Your task to perform on an android device: Open the calendar app, open the side menu, and click the "Day" option Image 0: 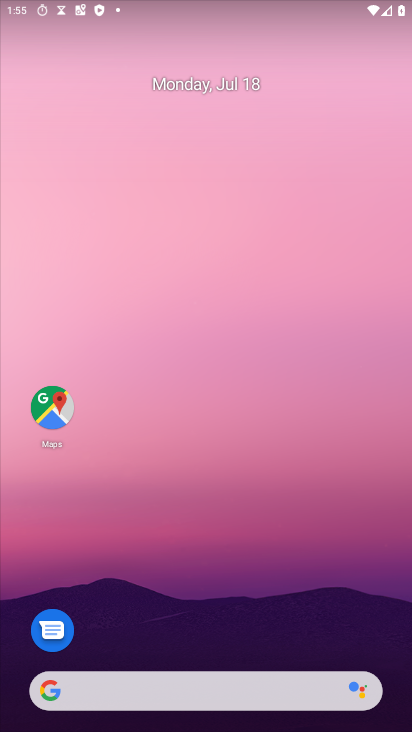
Step 0: drag from (350, 652) to (410, 60)
Your task to perform on an android device: Open the calendar app, open the side menu, and click the "Day" option Image 1: 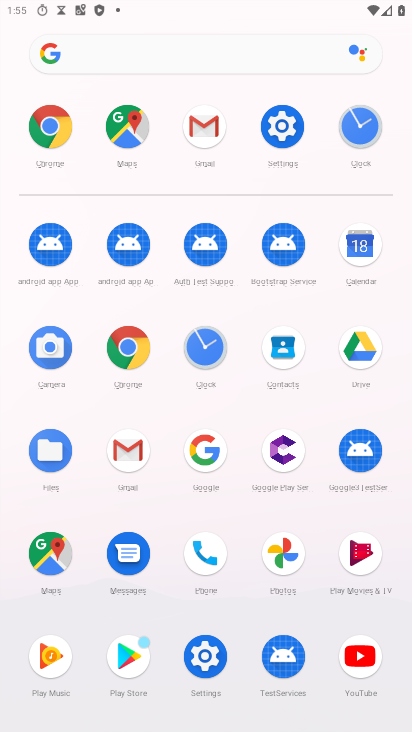
Step 1: click (358, 246)
Your task to perform on an android device: Open the calendar app, open the side menu, and click the "Day" option Image 2: 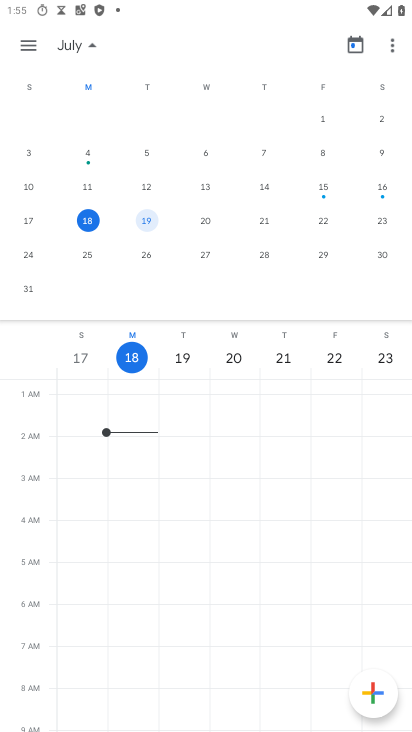
Step 2: click (97, 45)
Your task to perform on an android device: Open the calendar app, open the side menu, and click the "Day" option Image 3: 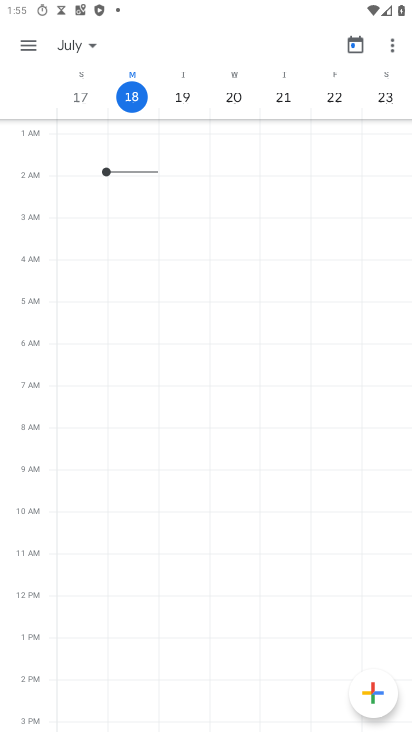
Step 3: click (30, 46)
Your task to perform on an android device: Open the calendar app, open the side menu, and click the "Day" option Image 4: 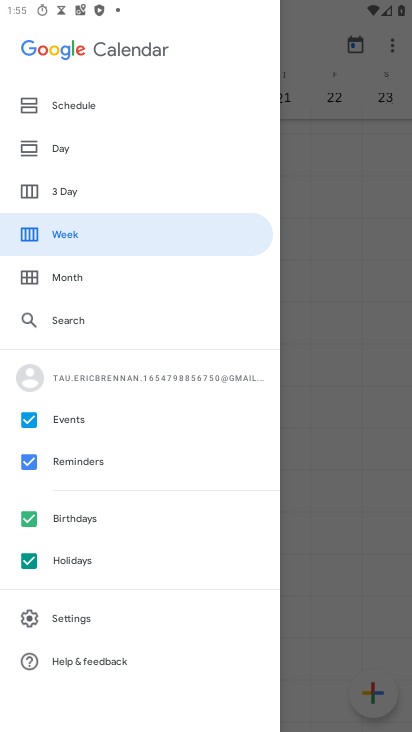
Step 4: click (85, 149)
Your task to perform on an android device: Open the calendar app, open the side menu, and click the "Day" option Image 5: 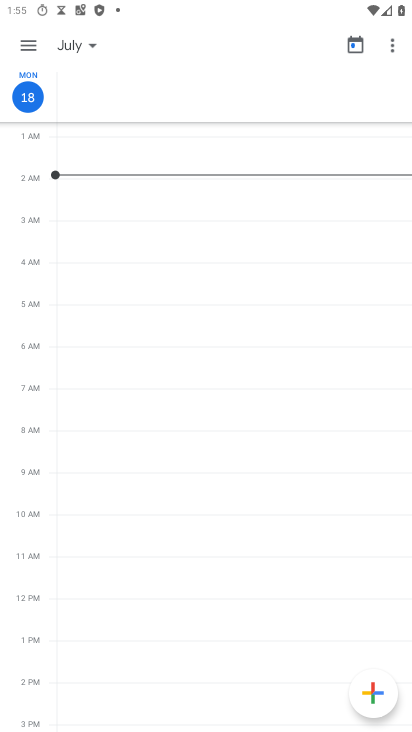
Step 5: task complete